Your task to perform on an android device: Do I have any events this weekend? Image 0: 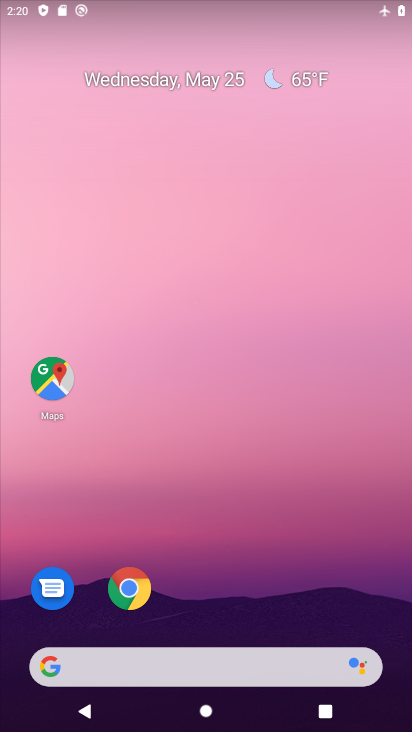
Step 0: drag from (175, 609) to (193, 173)
Your task to perform on an android device: Do I have any events this weekend? Image 1: 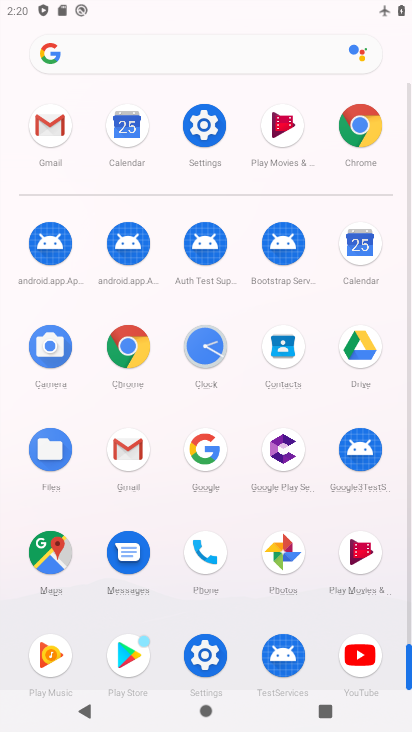
Step 1: click (361, 250)
Your task to perform on an android device: Do I have any events this weekend? Image 2: 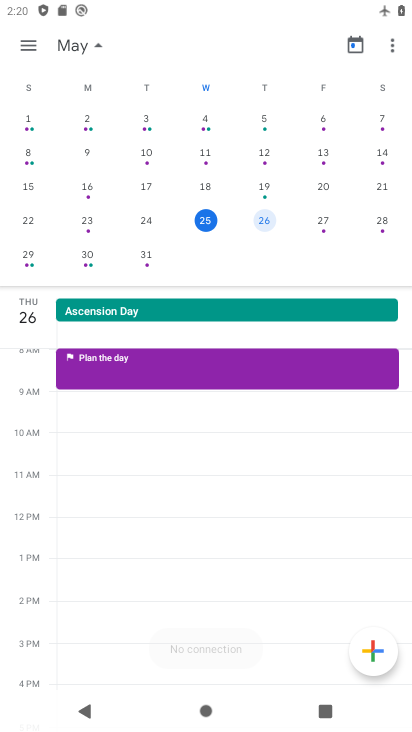
Step 2: click (386, 221)
Your task to perform on an android device: Do I have any events this weekend? Image 3: 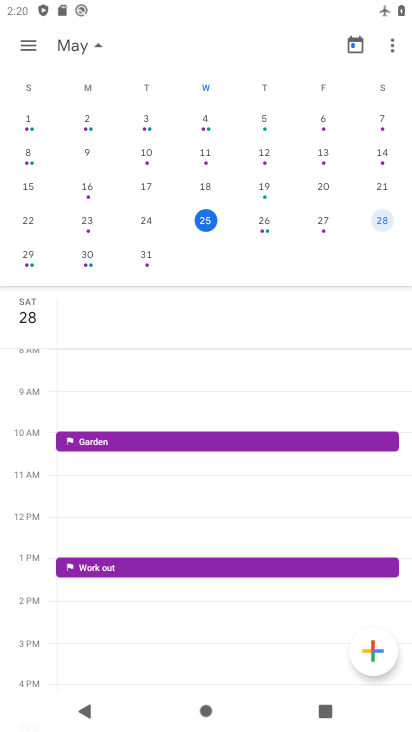
Step 3: click (25, 259)
Your task to perform on an android device: Do I have any events this weekend? Image 4: 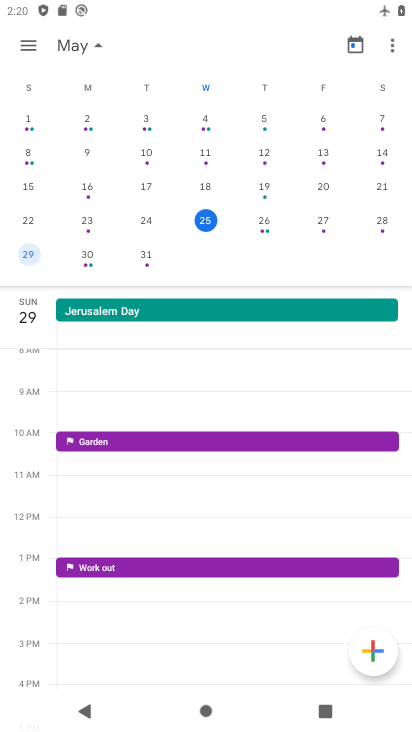
Step 4: task complete